Your task to perform on an android device: Open CNN.com Image 0: 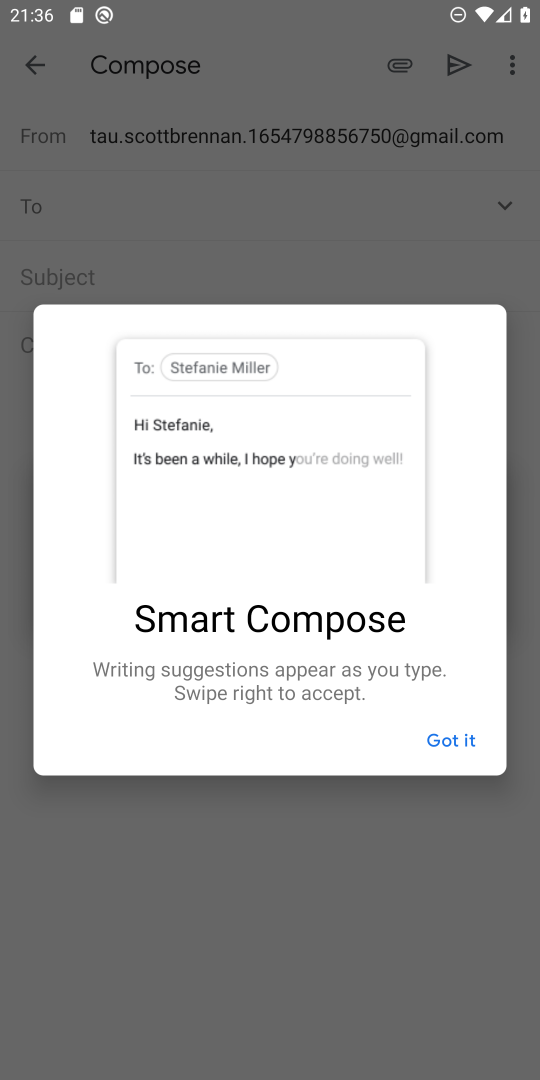
Step 0: press home button
Your task to perform on an android device: Open CNN.com Image 1: 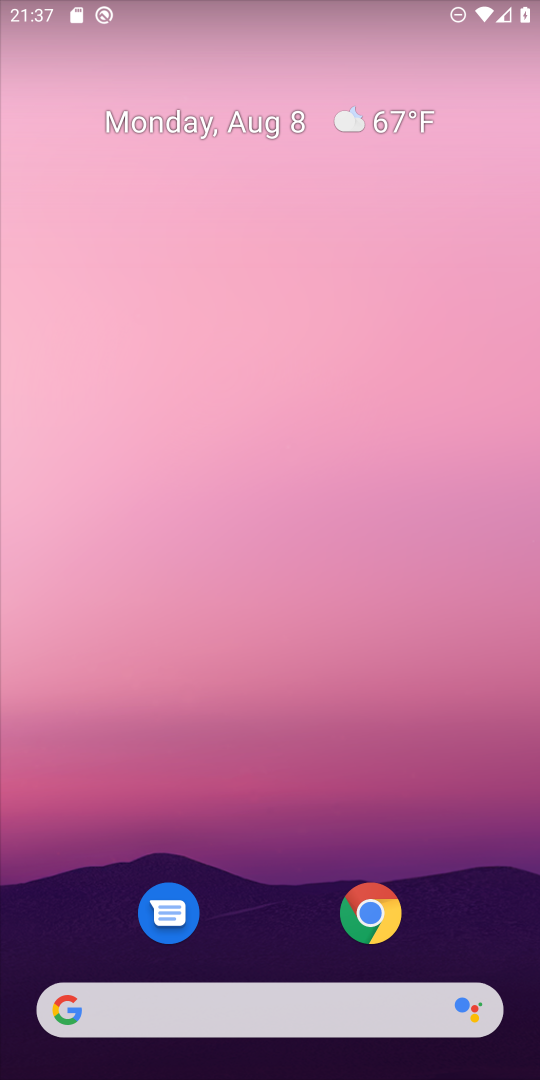
Step 1: click (372, 914)
Your task to perform on an android device: Open CNN.com Image 2: 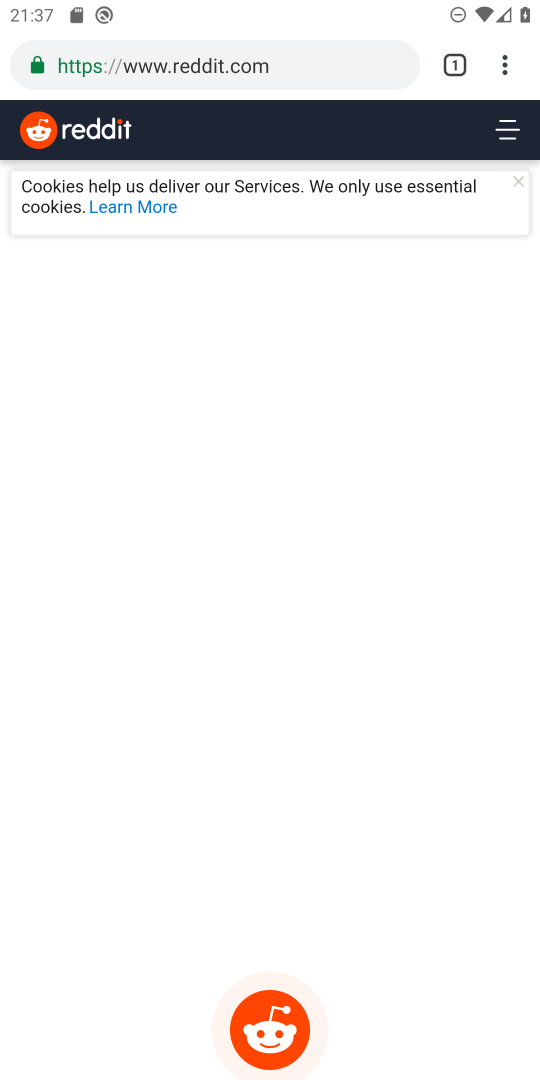
Step 2: click (364, 70)
Your task to perform on an android device: Open CNN.com Image 3: 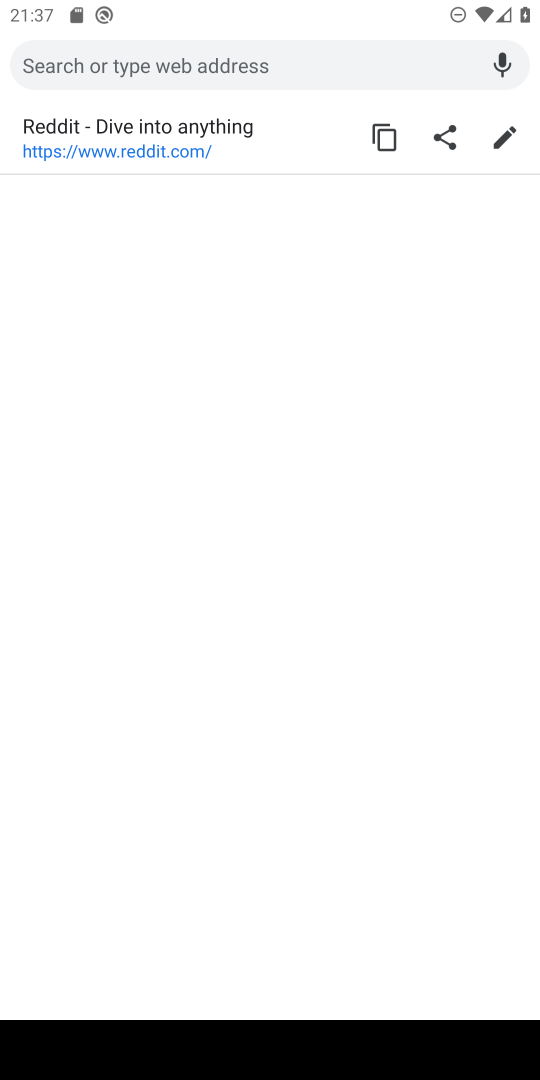
Step 3: type "CNN.com"
Your task to perform on an android device: Open CNN.com Image 4: 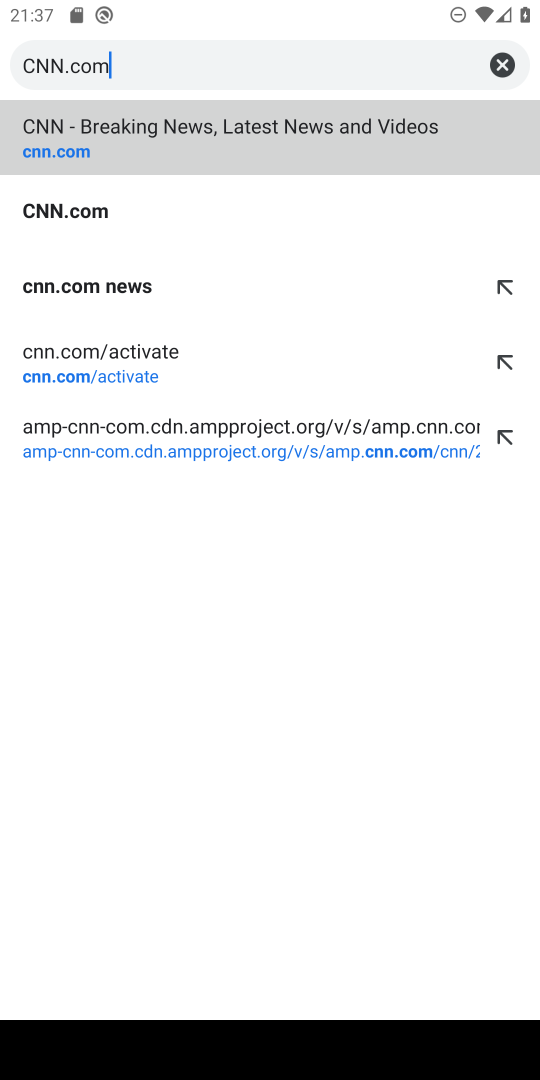
Step 4: click (103, 211)
Your task to perform on an android device: Open CNN.com Image 5: 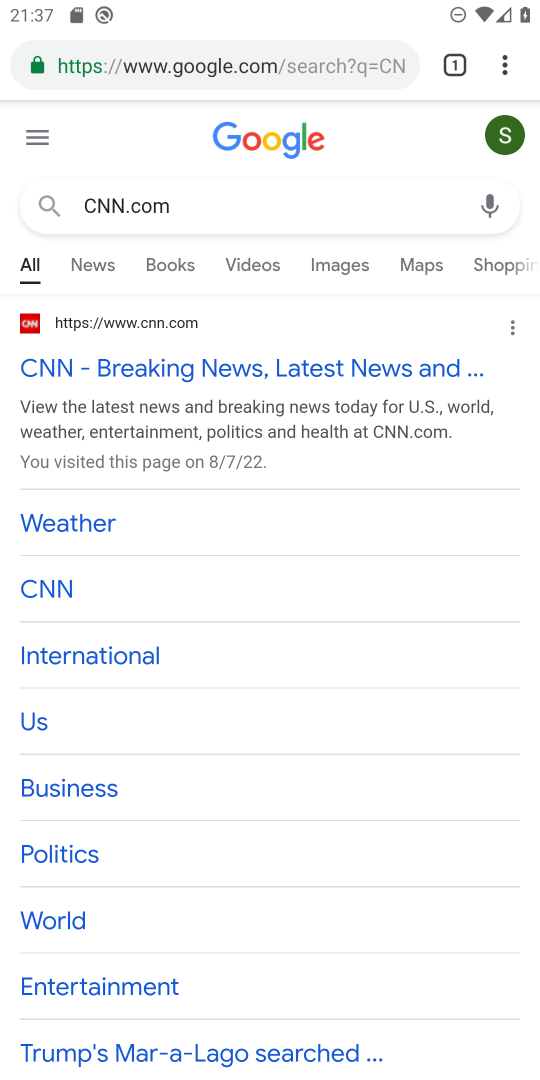
Step 5: click (159, 372)
Your task to perform on an android device: Open CNN.com Image 6: 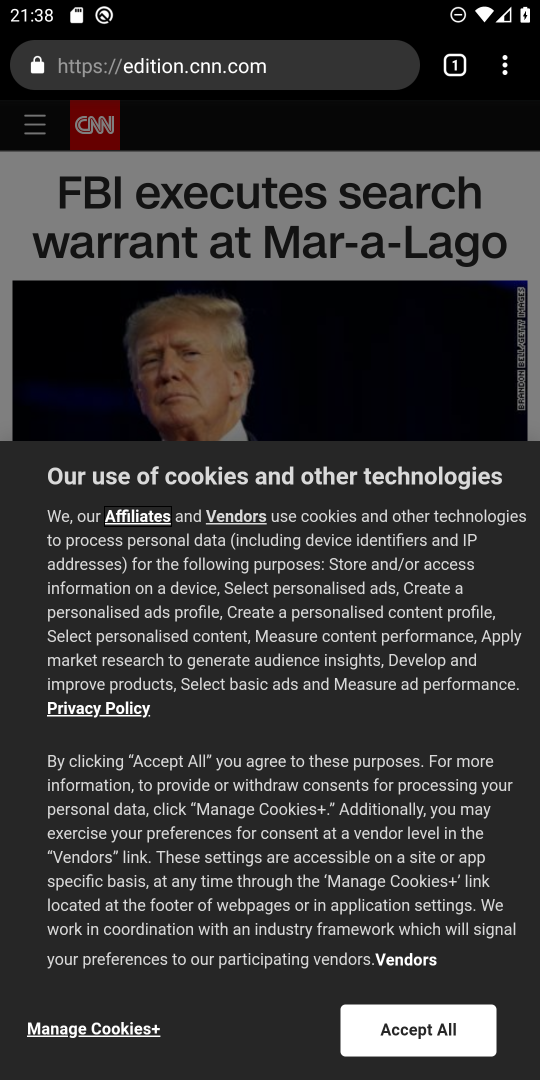
Step 6: drag from (269, 915) to (386, 443)
Your task to perform on an android device: Open CNN.com Image 7: 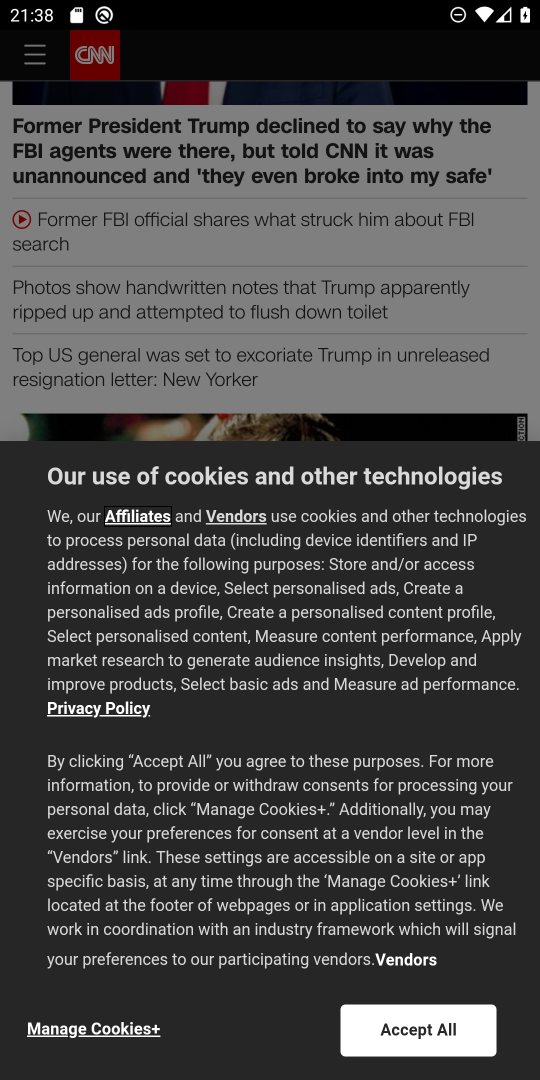
Step 7: click (430, 1020)
Your task to perform on an android device: Open CNN.com Image 8: 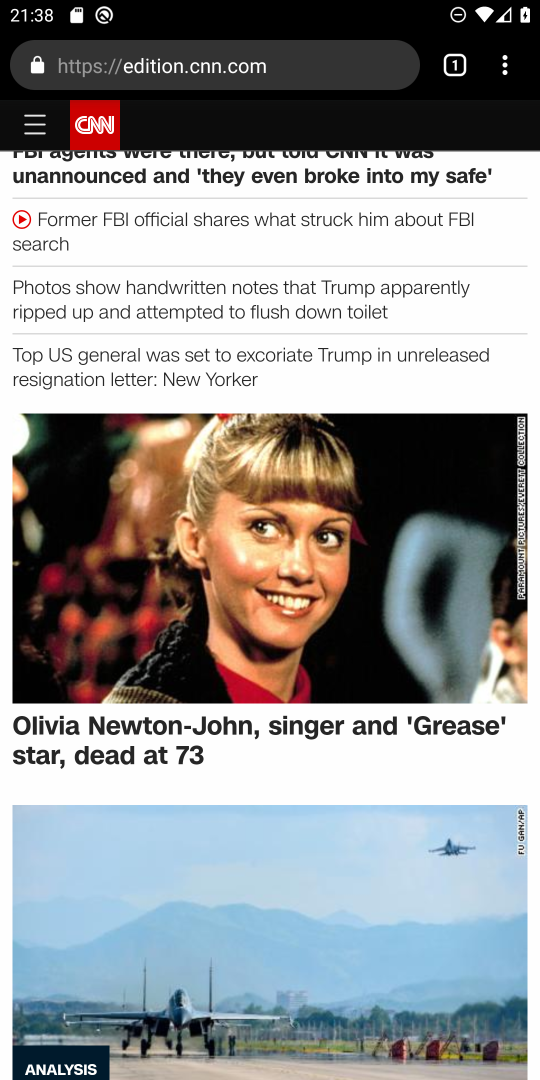
Step 8: task complete